Your task to perform on an android device: turn notification dots on Image 0: 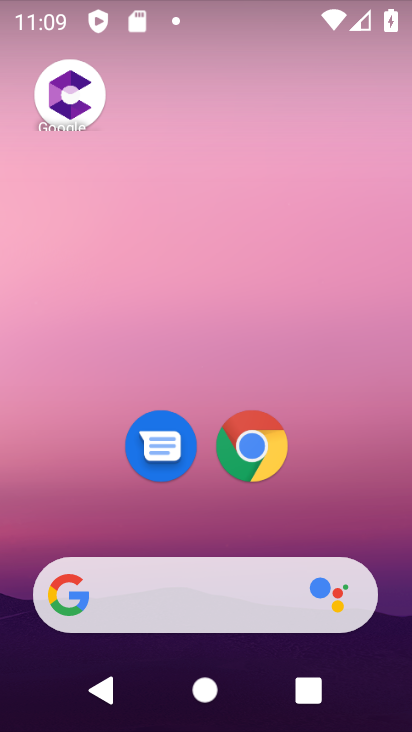
Step 0: drag from (324, 525) to (215, 122)
Your task to perform on an android device: turn notification dots on Image 1: 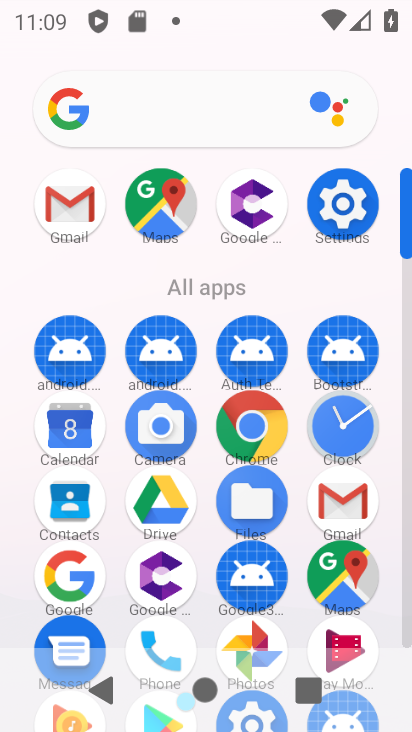
Step 1: click (347, 218)
Your task to perform on an android device: turn notification dots on Image 2: 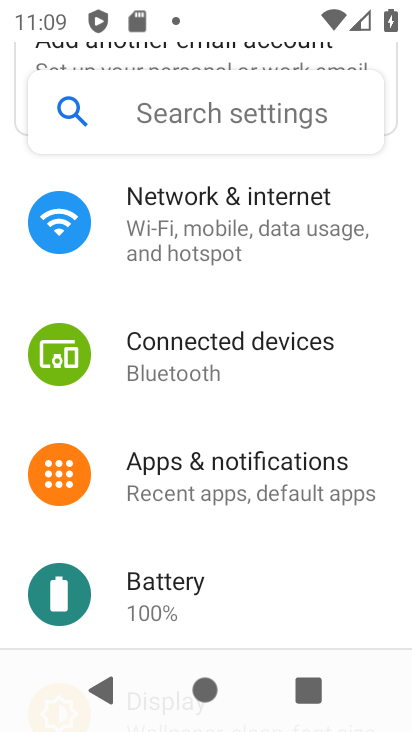
Step 2: click (180, 495)
Your task to perform on an android device: turn notification dots on Image 3: 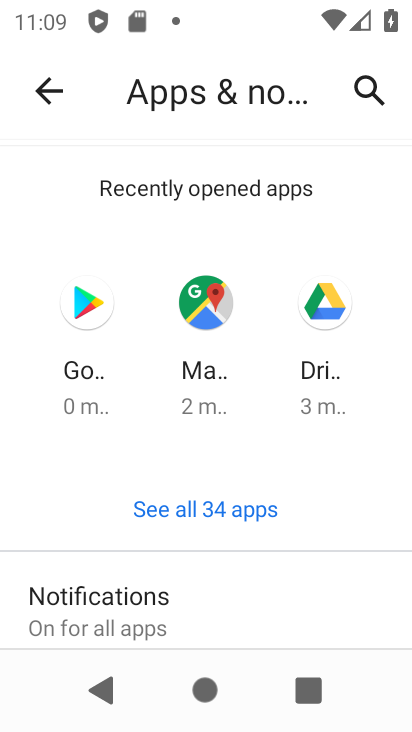
Step 3: drag from (161, 596) to (120, 371)
Your task to perform on an android device: turn notification dots on Image 4: 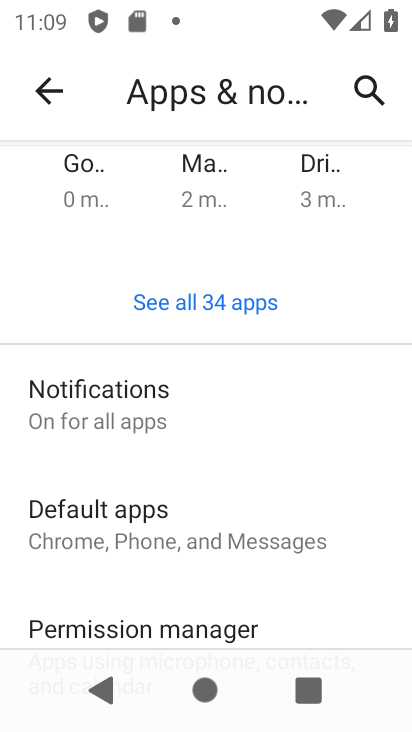
Step 4: click (109, 411)
Your task to perform on an android device: turn notification dots on Image 5: 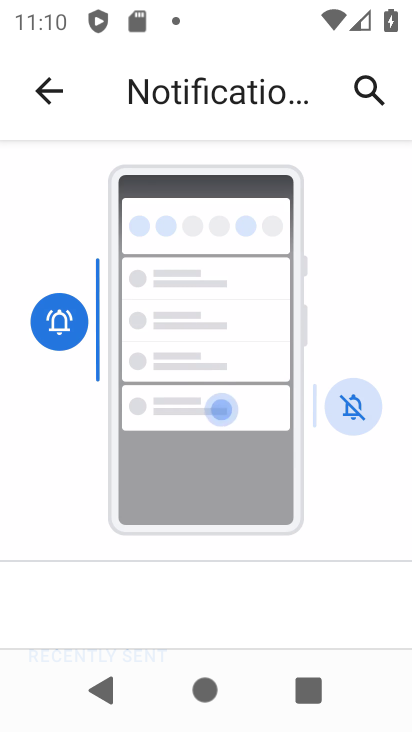
Step 5: drag from (147, 608) to (141, 401)
Your task to perform on an android device: turn notification dots on Image 6: 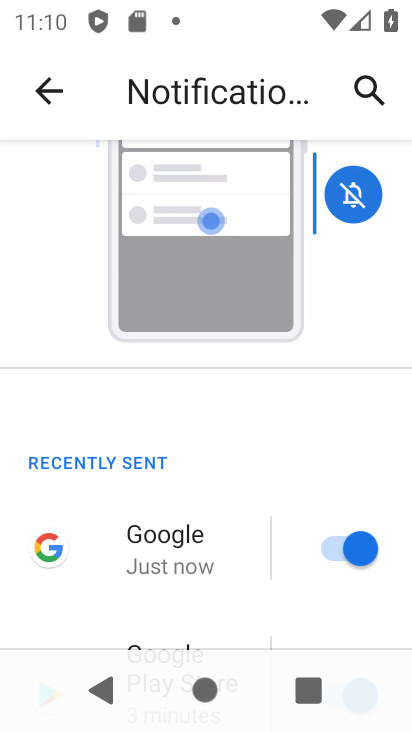
Step 6: drag from (183, 555) to (164, 406)
Your task to perform on an android device: turn notification dots on Image 7: 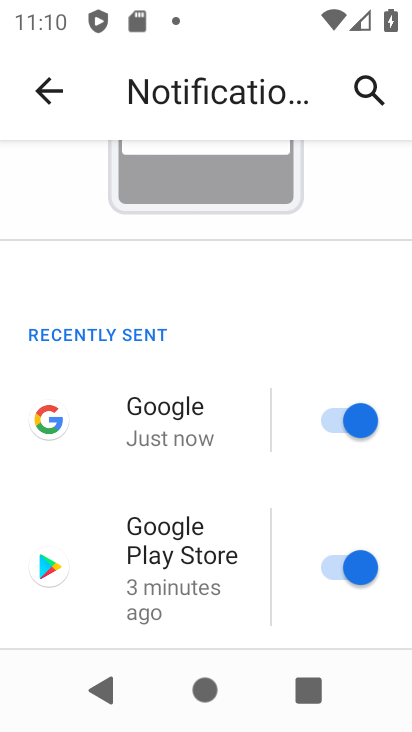
Step 7: drag from (177, 566) to (148, 370)
Your task to perform on an android device: turn notification dots on Image 8: 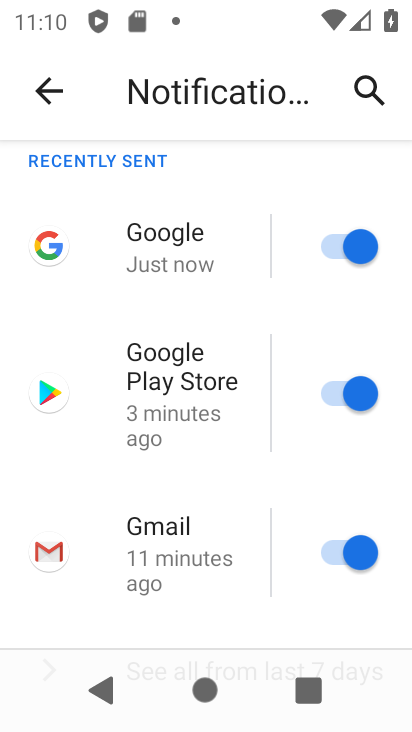
Step 8: drag from (210, 600) to (177, 415)
Your task to perform on an android device: turn notification dots on Image 9: 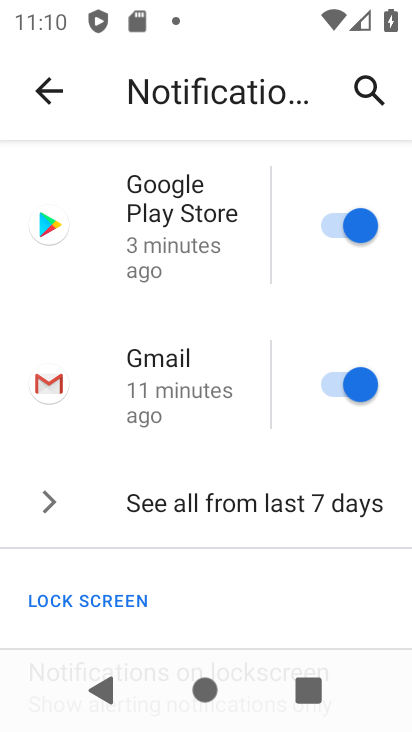
Step 9: drag from (204, 576) to (179, 326)
Your task to perform on an android device: turn notification dots on Image 10: 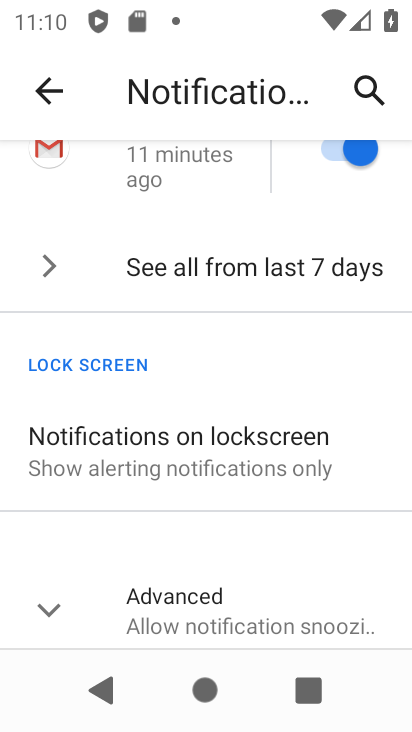
Step 10: drag from (220, 565) to (187, 446)
Your task to perform on an android device: turn notification dots on Image 11: 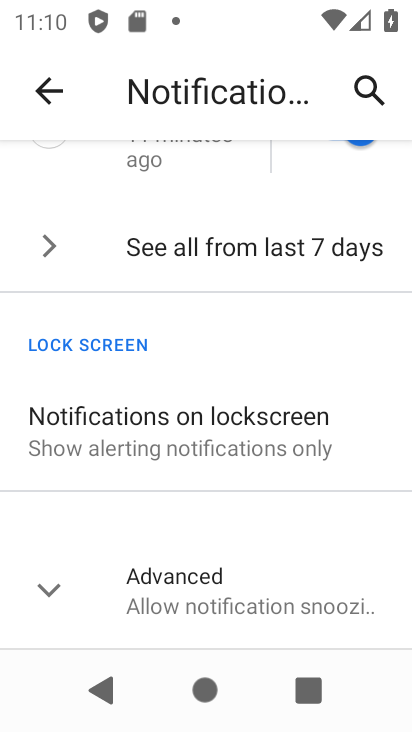
Step 11: click (225, 589)
Your task to perform on an android device: turn notification dots on Image 12: 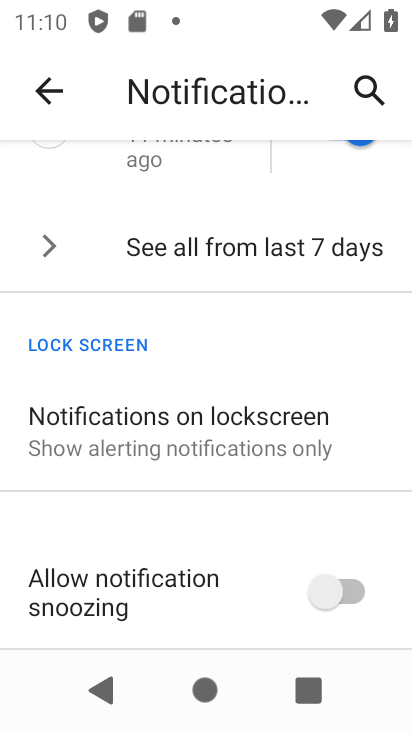
Step 12: task complete